Your task to perform on an android device: delete the emails in spam in the gmail app Image 0: 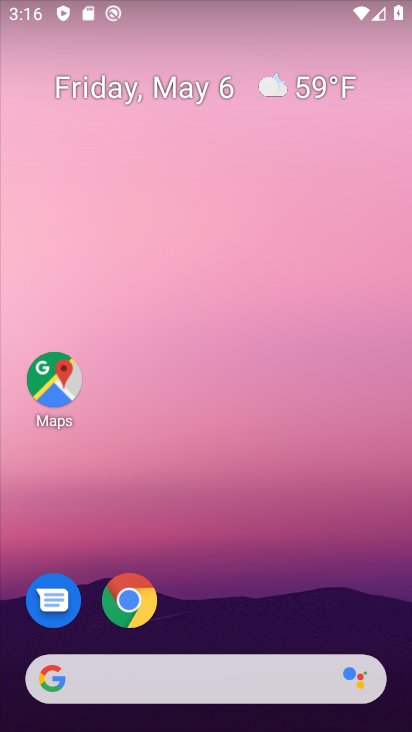
Step 0: drag from (231, 610) to (272, 7)
Your task to perform on an android device: delete the emails in spam in the gmail app Image 1: 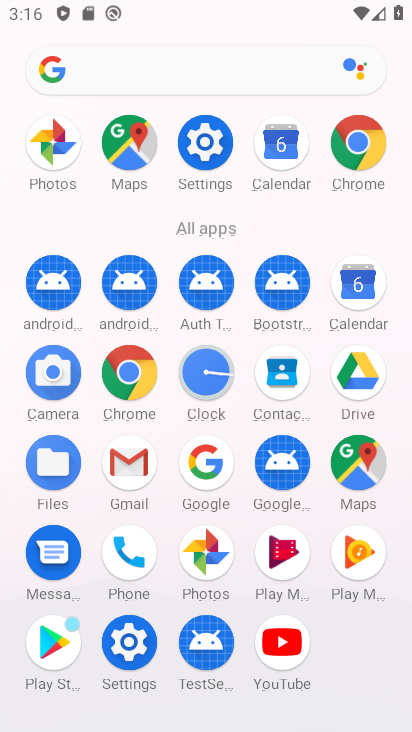
Step 1: click (141, 469)
Your task to perform on an android device: delete the emails in spam in the gmail app Image 2: 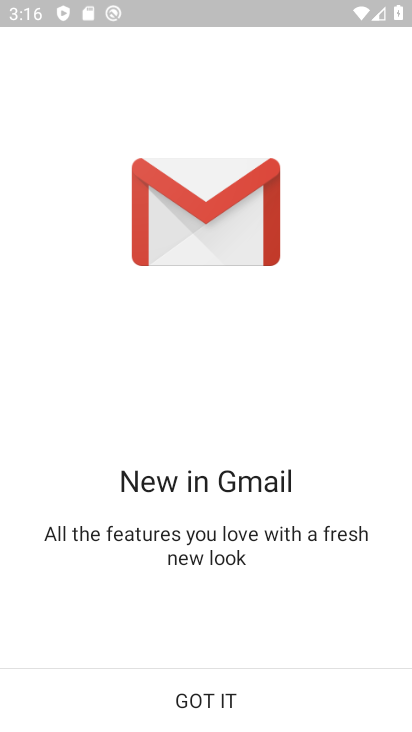
Step 2: click (247, 699)
Your task to perform on an android device: delete the emails in spam in the gmail app Image 3: 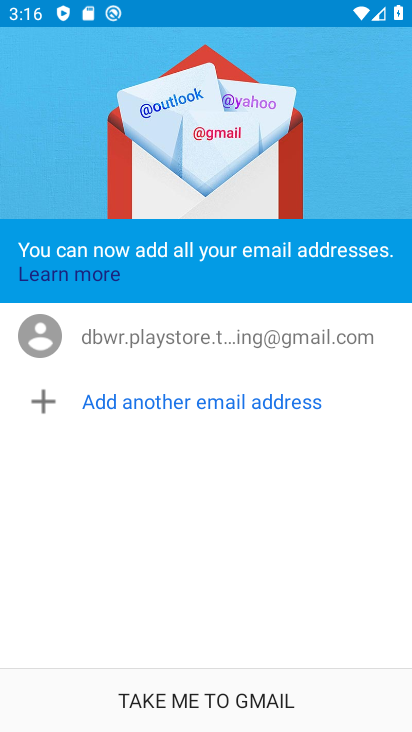
Step 3: click (236, 697)
Your task to perform on an android device: delete the emails in spam in the gmail app Image 4: 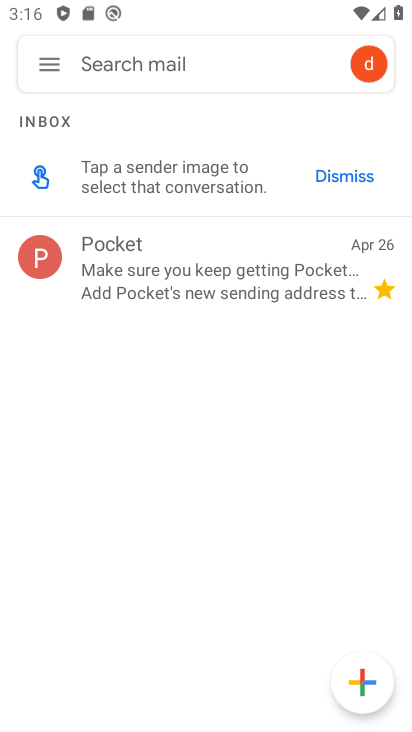
Step 4: click (55, 73)
Your task to perform on an android device: delete the emails in spam in the gmail app Image 5: 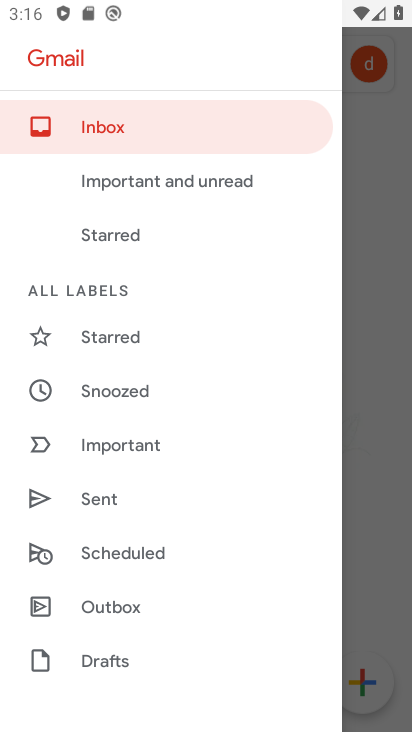
Step 5: drag from (139, 581) to (211, 286)
Your task to perform on an android device: delete the emails in spam in the gmail app Image 6: 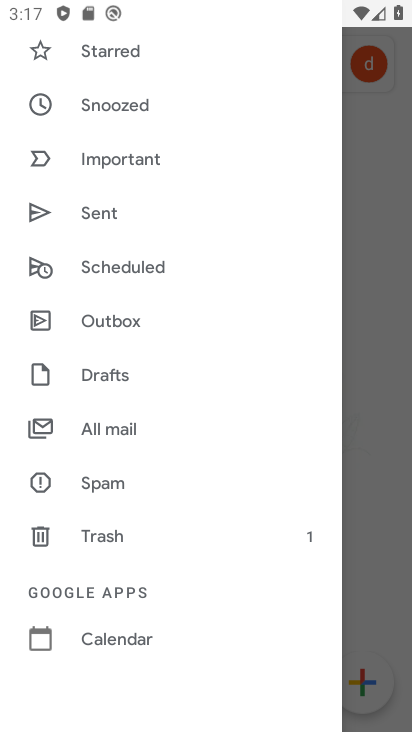
Step 6: click (127, 496)
Your task to perform on an android device: delete the emails in spam in the gmail app Image 7: 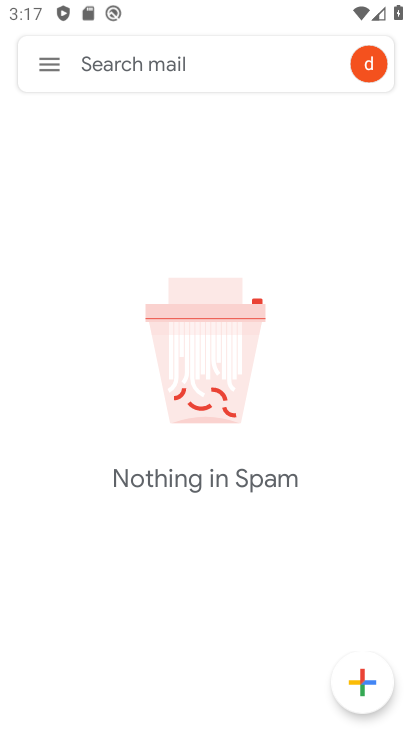
Step 7: task complete